Your task to perform on an android device: Is it going to rain tomorrow? Image 0: 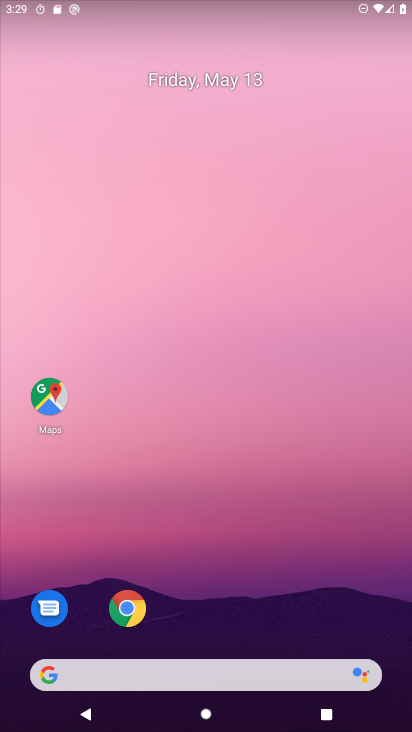
Step 0: drag from (304, 598) to (181, 7)
Your task to perform on an android device: Is it going to rain tomorrow? Image 1: 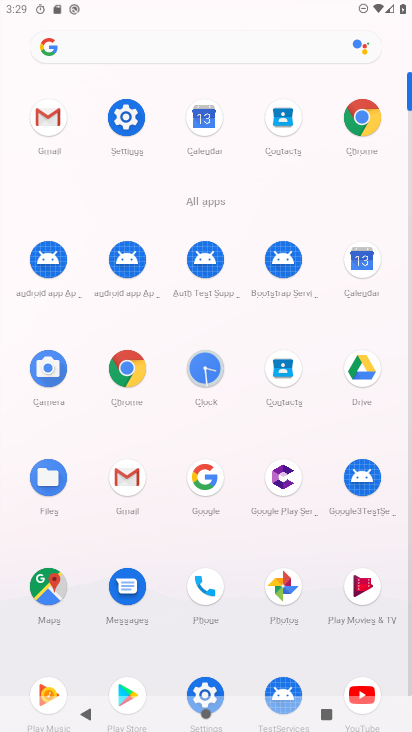
Step 1: click (137, 371)
Your task to perform on an android device: Is it going to rain tomorrow? Image 2: 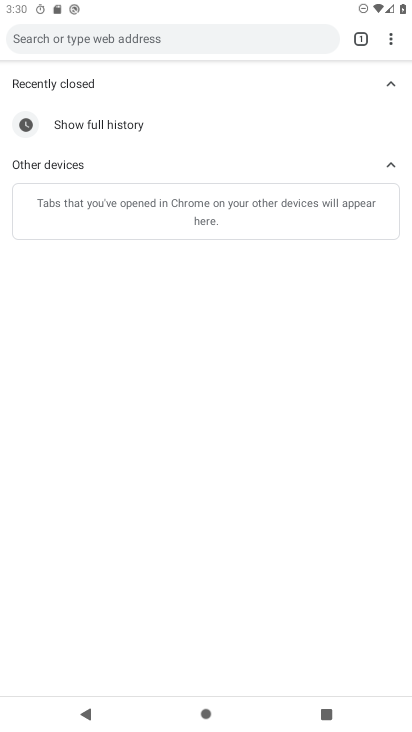
Step 2: drag from (230, 711) to (377, 236)
Your task to perform on an android device: Is it going to rain tomorrow? Image 3: 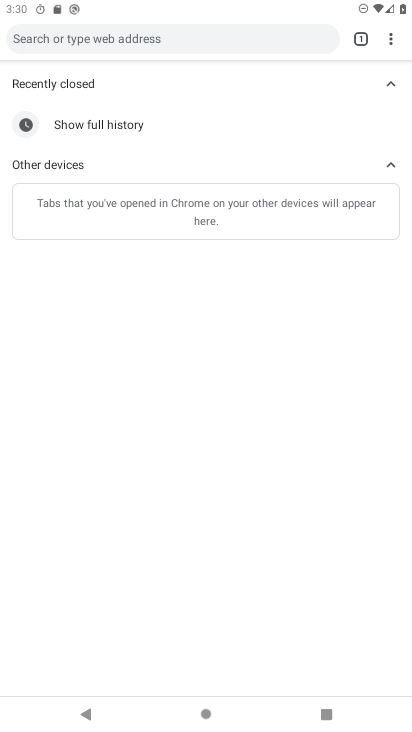
Step 3: drag from (389, 33) to (280, 75)
Your task to perform on an android device: Is it going to rain tomorrow? Image 4: 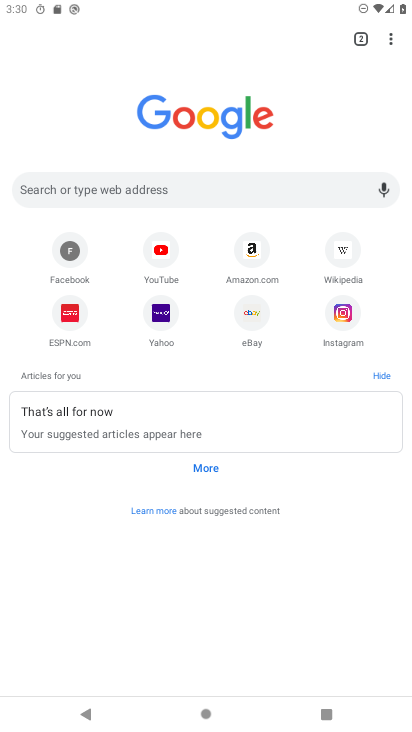
Step 4: click (187, 182)
Your task to perform on an android device: Is it going to rain tomorrow? Image 5: 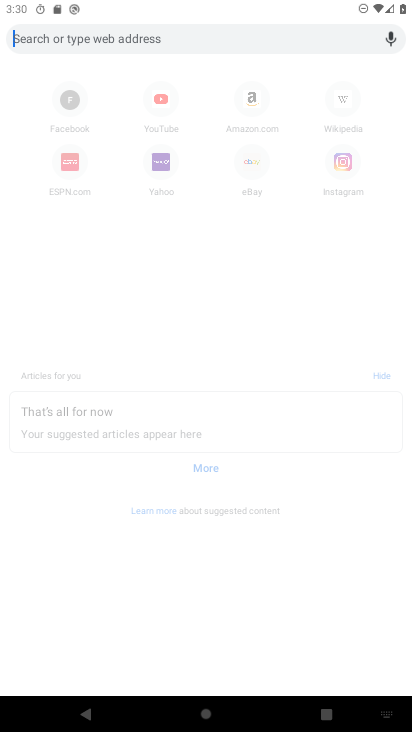
Step 5: type "Is it going to rain tomorrow?"
Your task to perform on an android device: Is it going to rain tomorrow? Image 6: 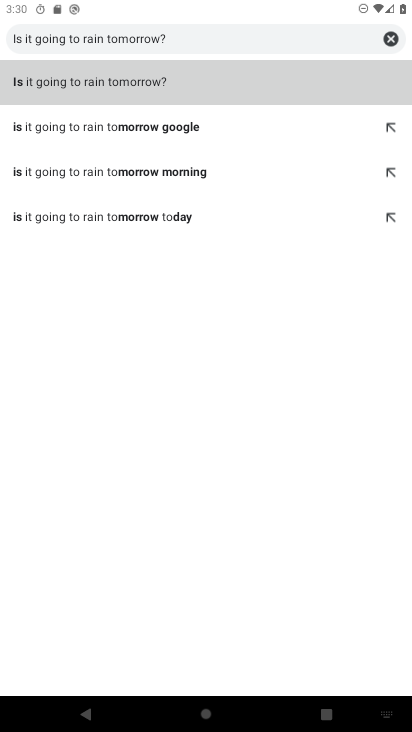
Step 6: click (100, 80)
Your task to perform on an android device: Is it going to rain tomorrow? Image 7: 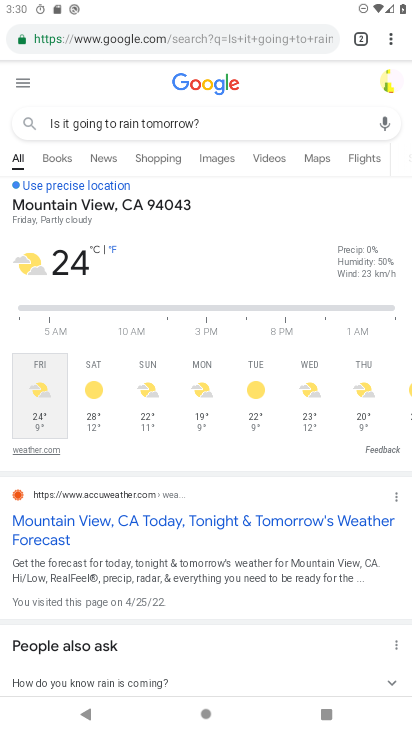
Step 7: task complete